Your task to perform on an android device: Toggle the flashlight Image 0: 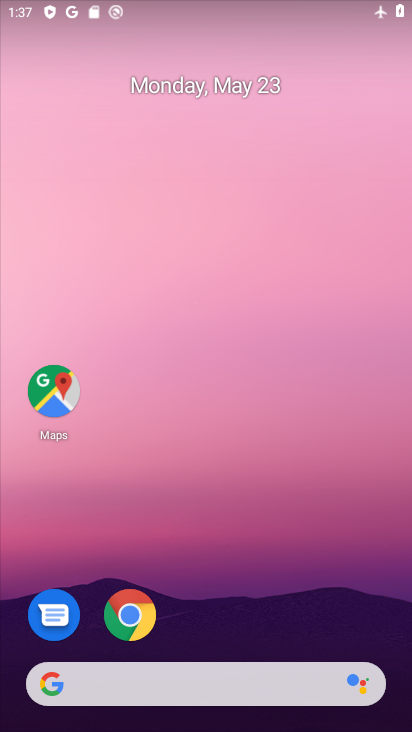
Step 0: click (209, 658)
Your task to perform on an android device: Toggle the flashlight Image 1: 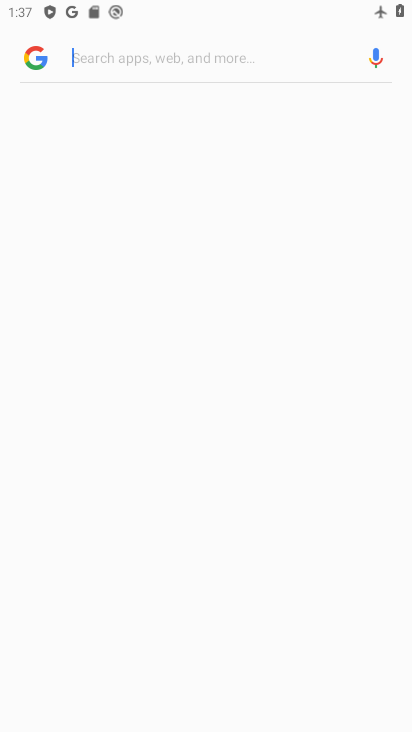
Step 1: click (209, 658)
Your task to perform on an android device: Toggle the flashlight Image 2: 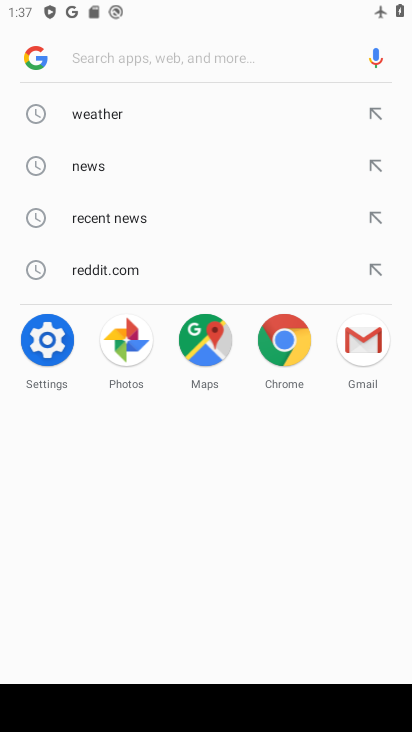
Step 2: click (209, 658)
Your task to perform on an android device: Toggle the flashlight Image 3: 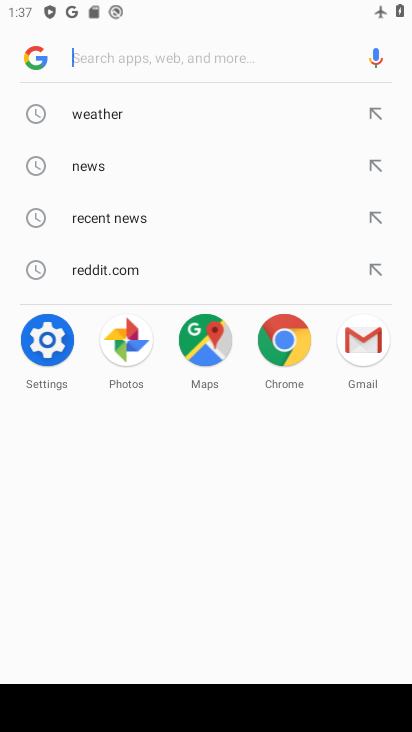
Step 3: click (209, 658)
Your task to perform on an android device: Toggle the flashlight Image 4: 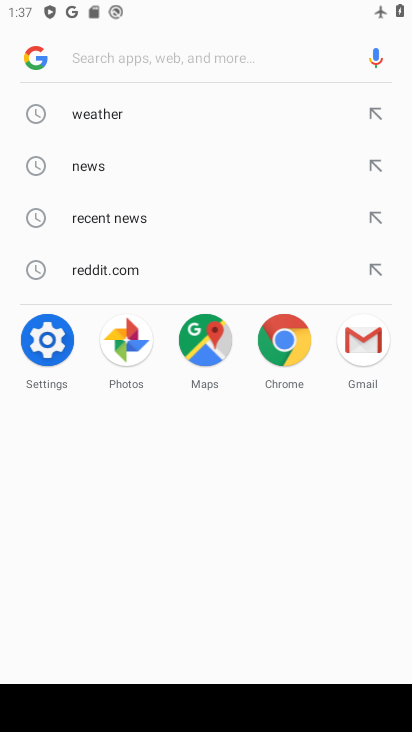
Step 4: click (209, 658)
Your task to perform on an android device: Toggle the flashlight Image 5: 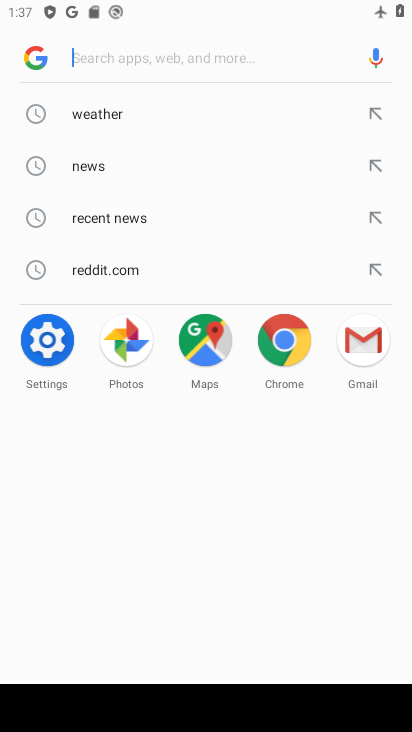
Step 5: click (209, 658)
Your task to perform on an android device: Toggle the flashlight Image 6: 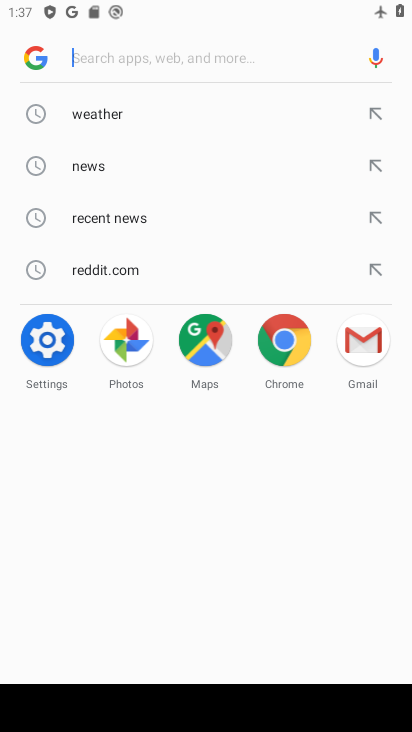
Step 6: click (209, 658)
Your task to perform on an android device: Toggle the flashlight Image 7: 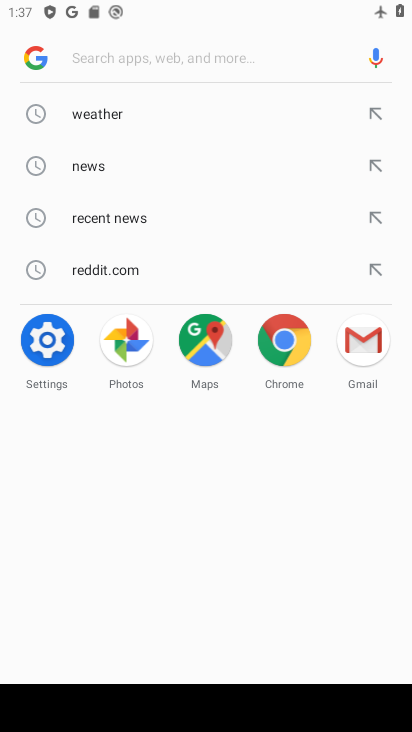
Step 7: click (209, 658)
Your task to perform on an android device: Toggle the flashlight Image 8: 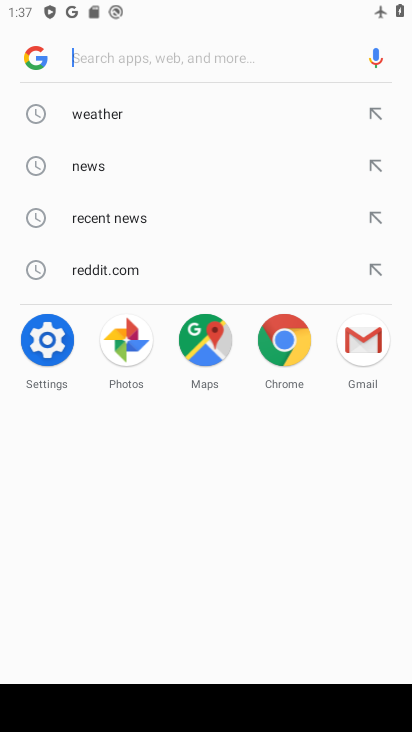
Step 8: click (209, 658)
Your task to perform on an android device: Toggle the flashlight Image 9: 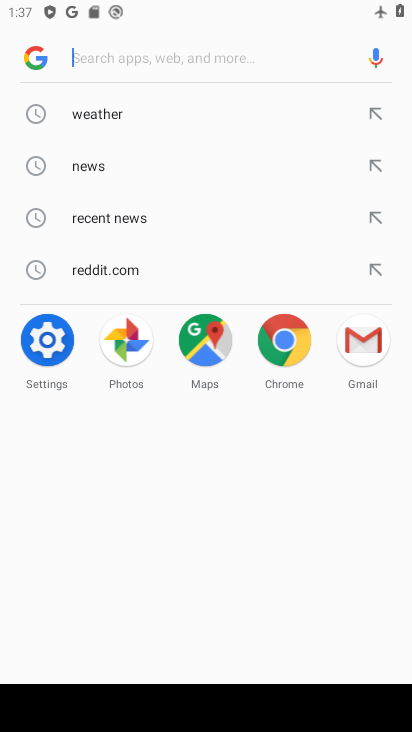
Step 9: click (209, 658)
Your task to perform on an android device: Toggle the flashlight Image 10: 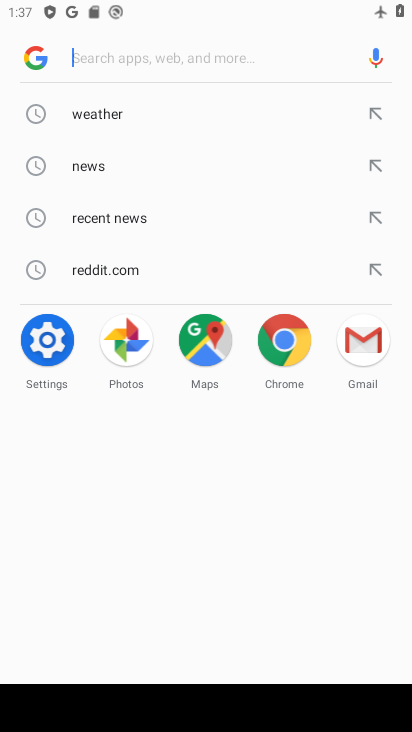
Step 10: click (273, 658)
Your task to perform on an android device: Toggle the flashlight Image 11: 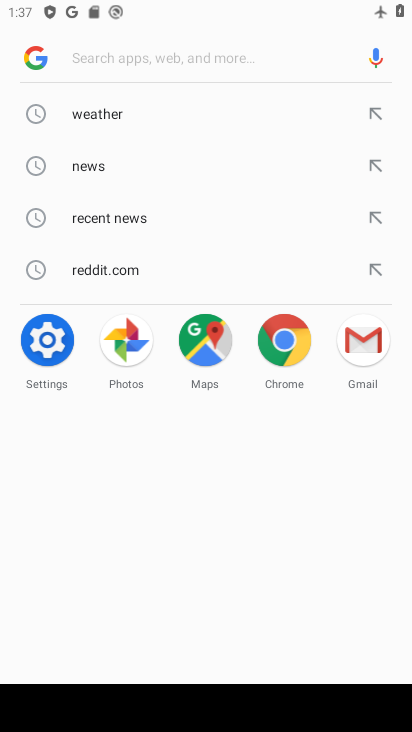
Step 11: click (273, 658)
Your task to perform on an android device: Toggle the flashlight Image 12: 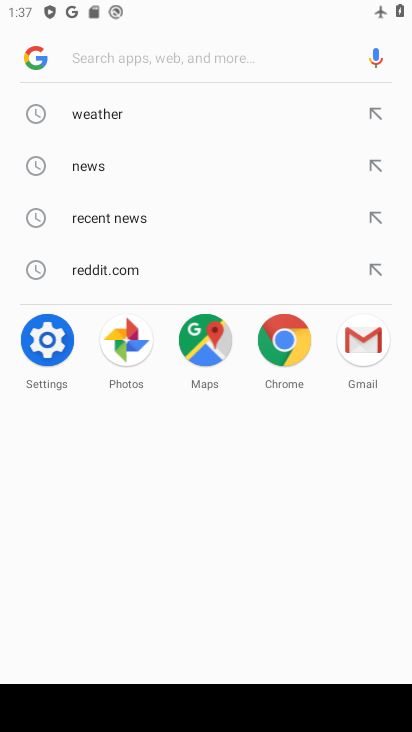
Step 12: click (242, 654)
Your task to perform on an android device: Toggle the flashlight Image 13: 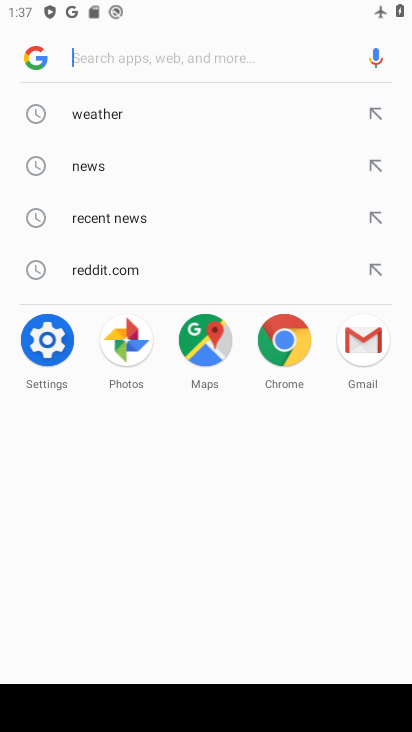
Step 13: click (242, 654)
Your task to perform on an android device: Toggle the flashlight Image 14: 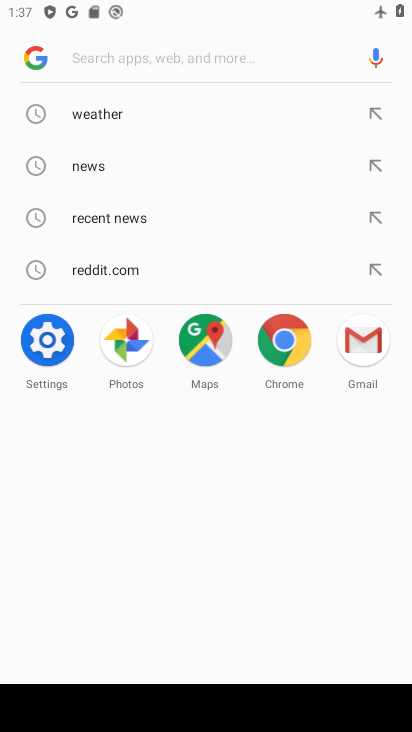
Step 14: click (242, 654)
Your task to perform on an android device: Toggle the flashlight Image 15: 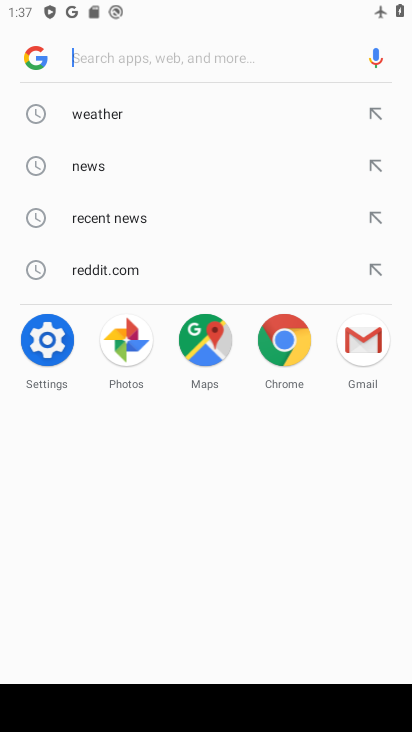
Step 15: click (242, 654)
Your task to perform on an android device: Toggle the flashlight Image 16: 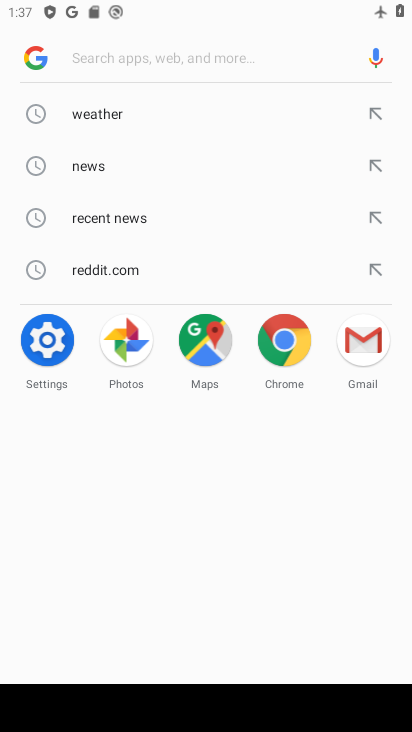
Step 16: click (242, 654)
Your task to perform on an android device: Toggle the flashlight Image 17: 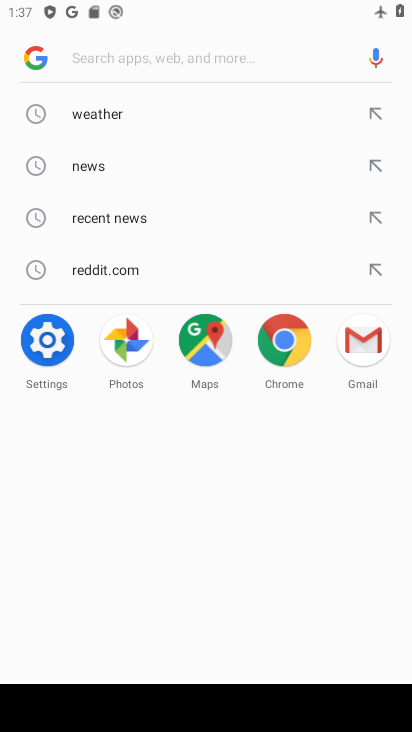
Step 17: click (242, 654)
Your task to perform on an android device: Toggle the flashlight Image 18: 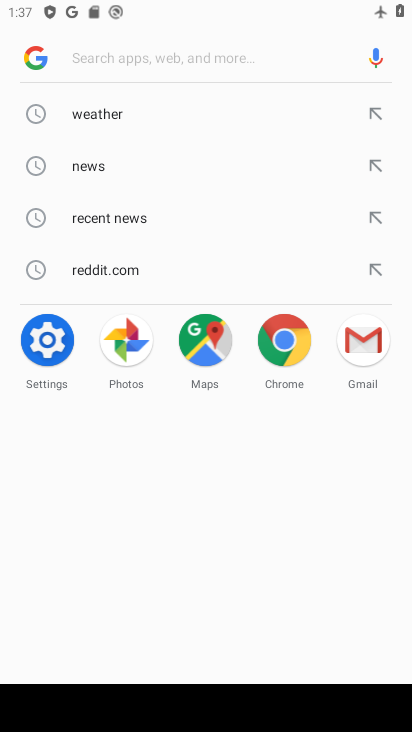
Step 18: press home button
Your task to perform on an android device: Toggle the flashlight Image 19: 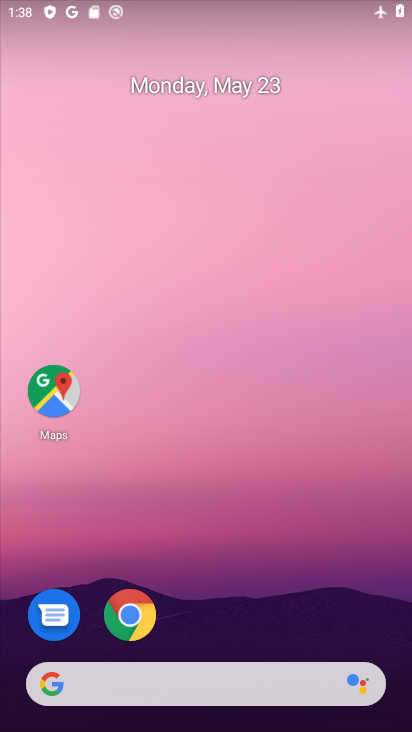
Step 19: drag from (254, 650) to (155, 85)
Your task to perform on an android device: Toggle the flashlight Image 20: 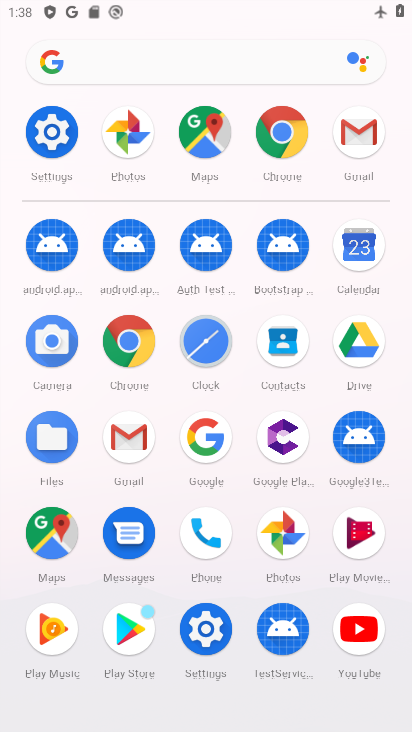
Step 20: click (42, 133)
Your task to perform on an android device: Toggle the flashlight Image 21: 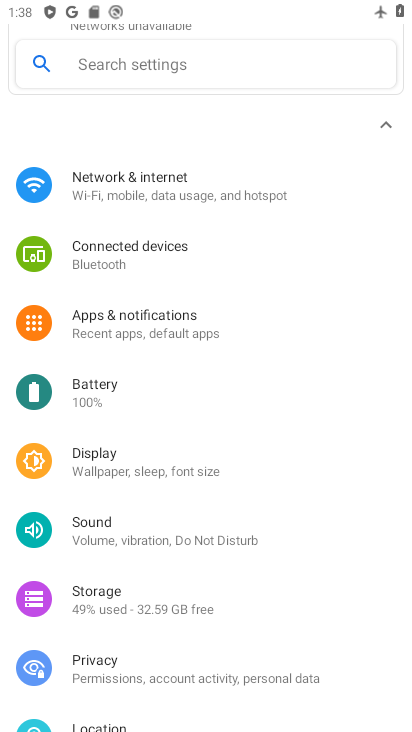
Step 21: task complete